Your task to perform on an android device: toggle translation in the chrome app Image 0: 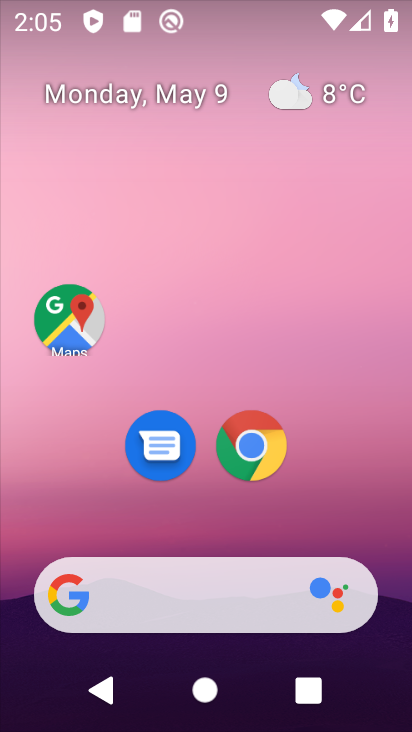
Step 0: click (261, 435)
Your task to perform on an android device: toggle translation in the chrome app Image 1: 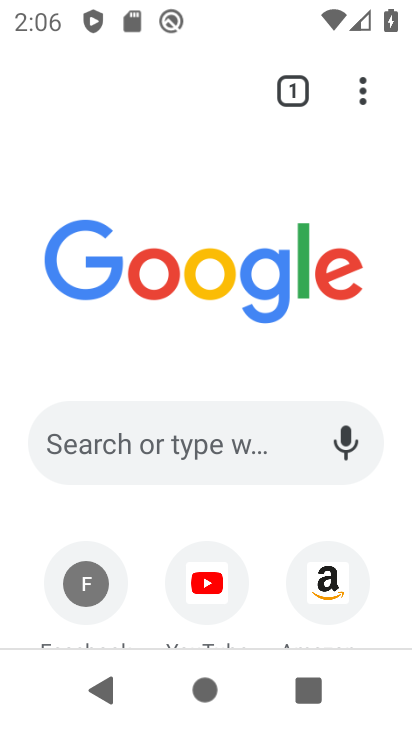
Step 1: drag from (363, 101) to (132, 457)
Your task to perform on an android device: toggle translation in the chrome app Image 2: 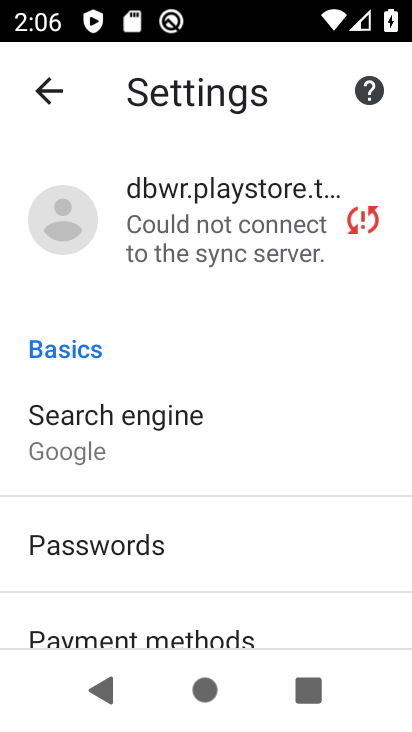
Step 2: drag from (214, 450) to (287, 271)
Your task to perform on an android device: toggle translation in the chrome app Image 3: 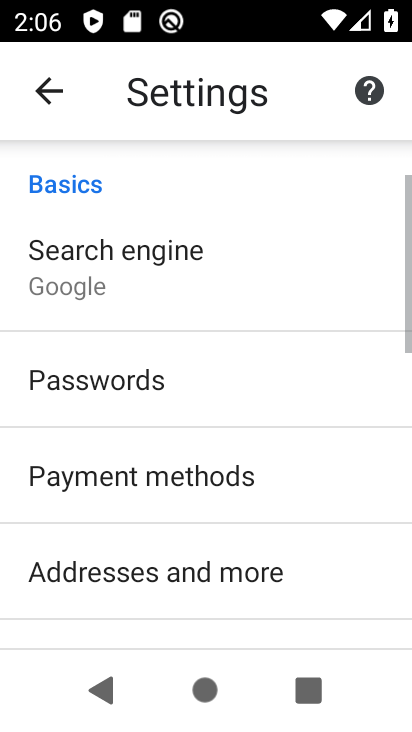
Step 3: drag from (321, 607) to (297, 315)
Your task to perform on an android device: toggle translation in the chrome app Image 4: 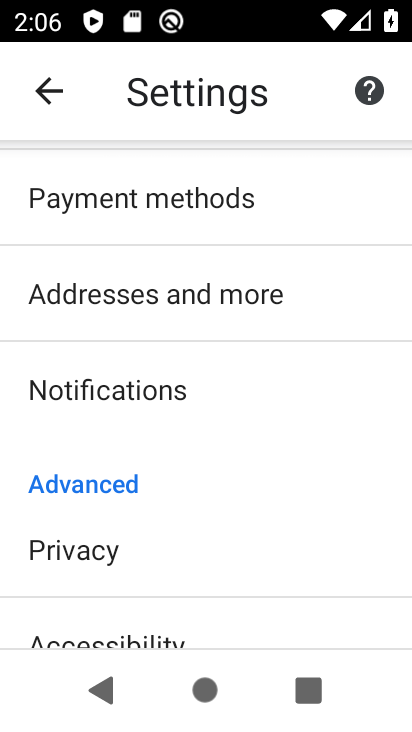
Step 4: drag from (325, 592) to (339, 233)
Your task to perform on an android device: toggle translation in the chrome app Image 5: 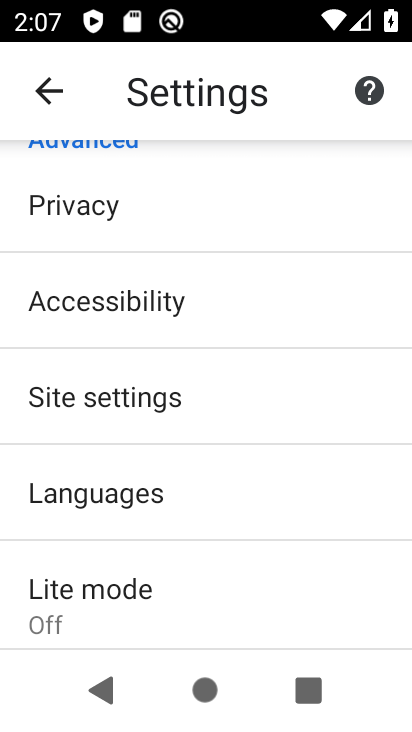
Step 5: click (67, 472)
Your task to perform on an android device: toggle translation in the chrome app Image 6: 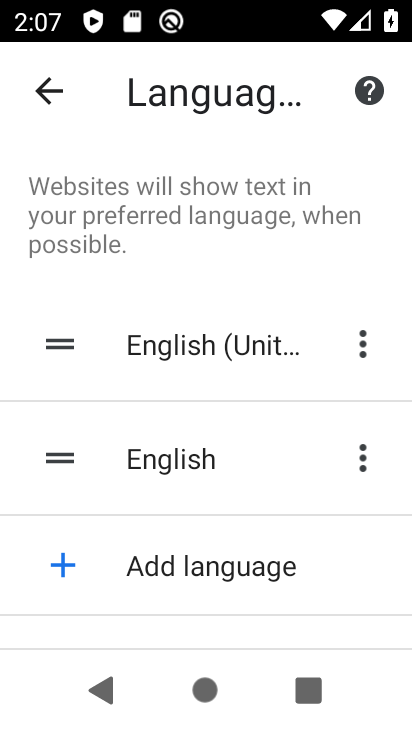
Step 6: drag from (245, 605) to (118, 191)
Your task to perform on an android device: toggle translation in the chrome app Image 7: 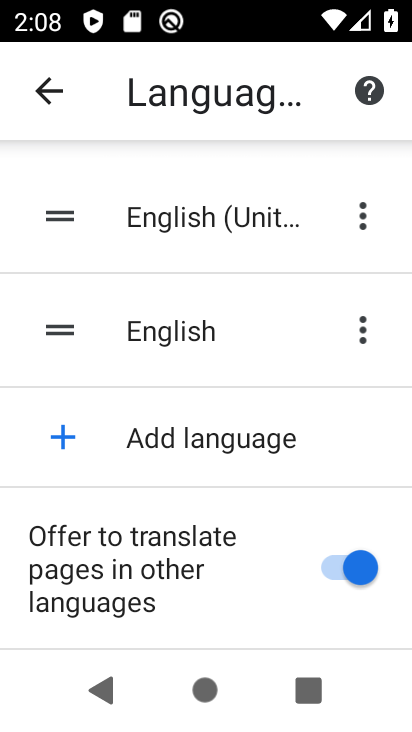
Step 7: click (315, 592)
Your task to perform on an android device: toggle translation in the chrome app Image 8: 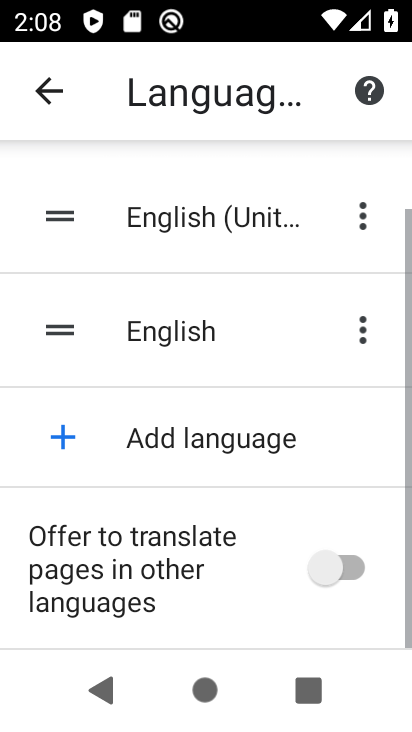
Step 8: task complete